Your task to perform on an android device: Open the calendar and show me this week's events? Image 0: 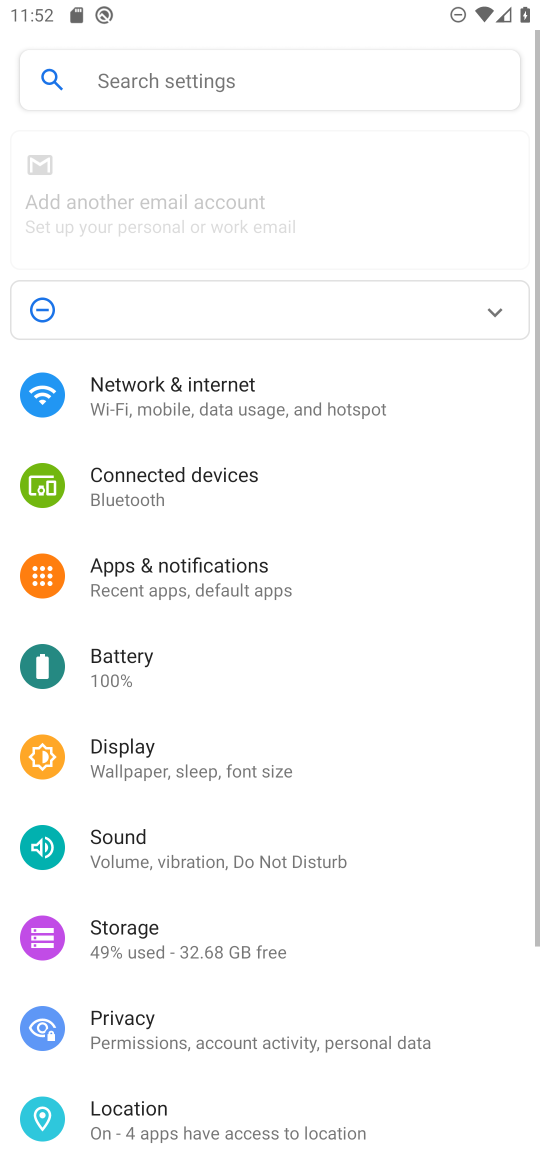
Step 0: press home button
Your task to perform on an android device: Open the calendar and show me this week's events? Image 1: 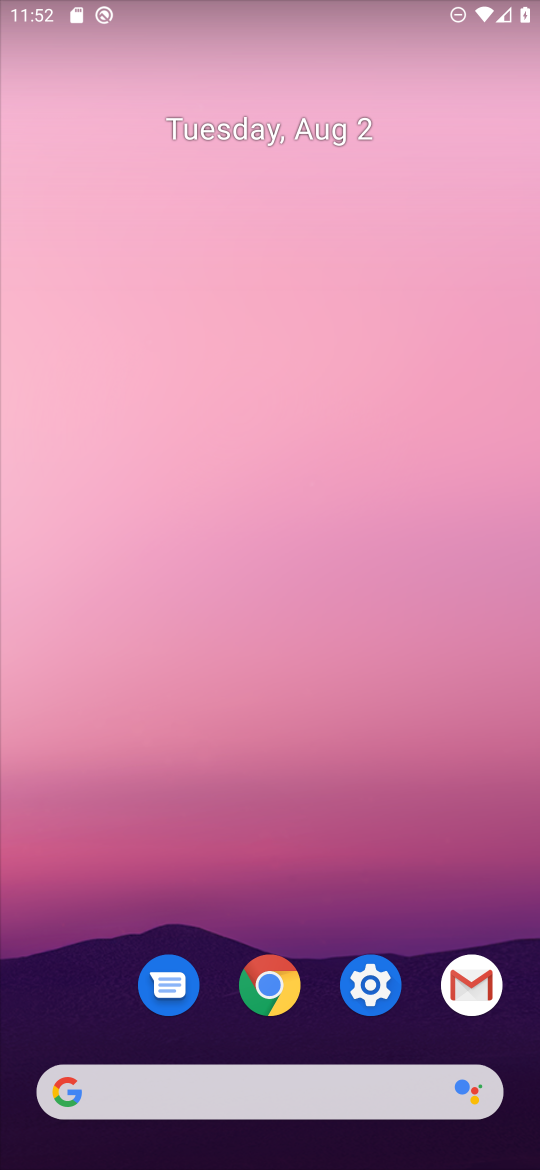
Step 1: drag from (357, 1115) to (171, 271)
Your task to perform on an android device: Open the calendar and show me this week's events? Image 2: 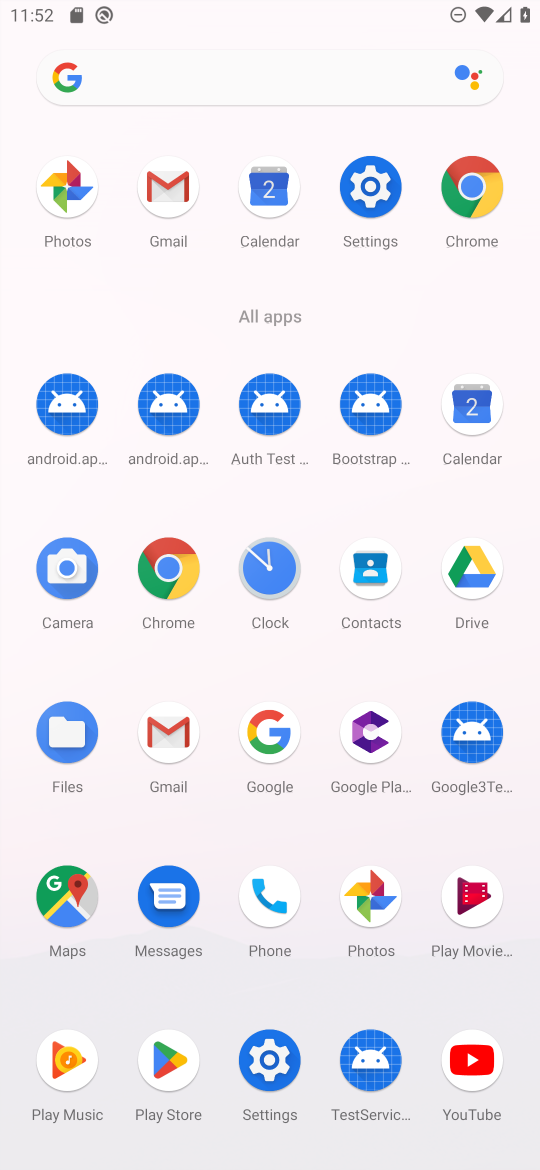
Step 2: click (466, 410)
Your task to perform on an android device: Open the calendar and show me this week's events? Image 3: 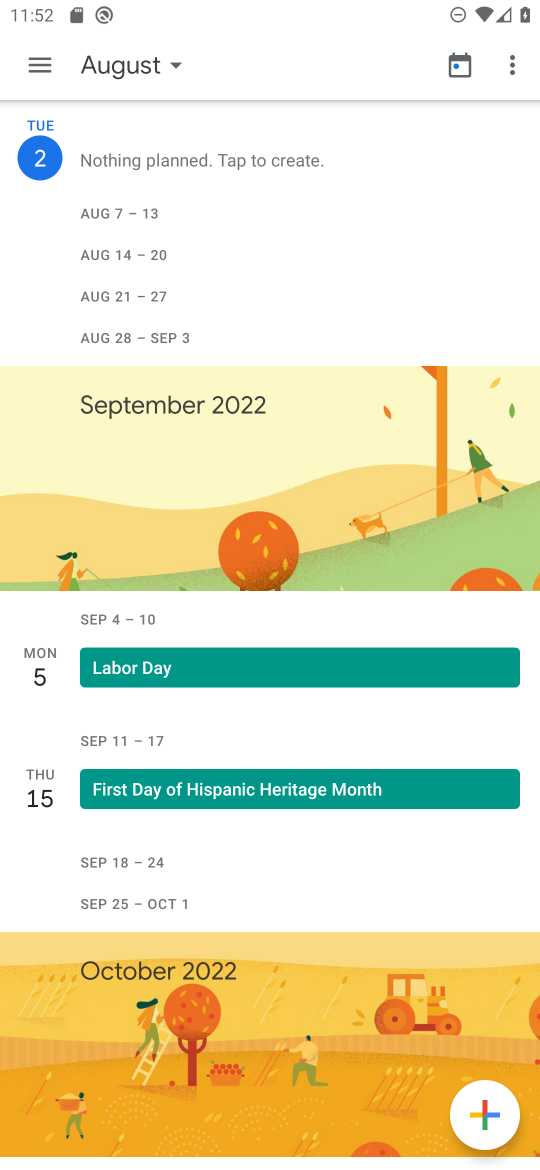
Step 3: click (24, 61)
Your task to perform on an android device: Open the calendar and show me this week's events? Image 4: 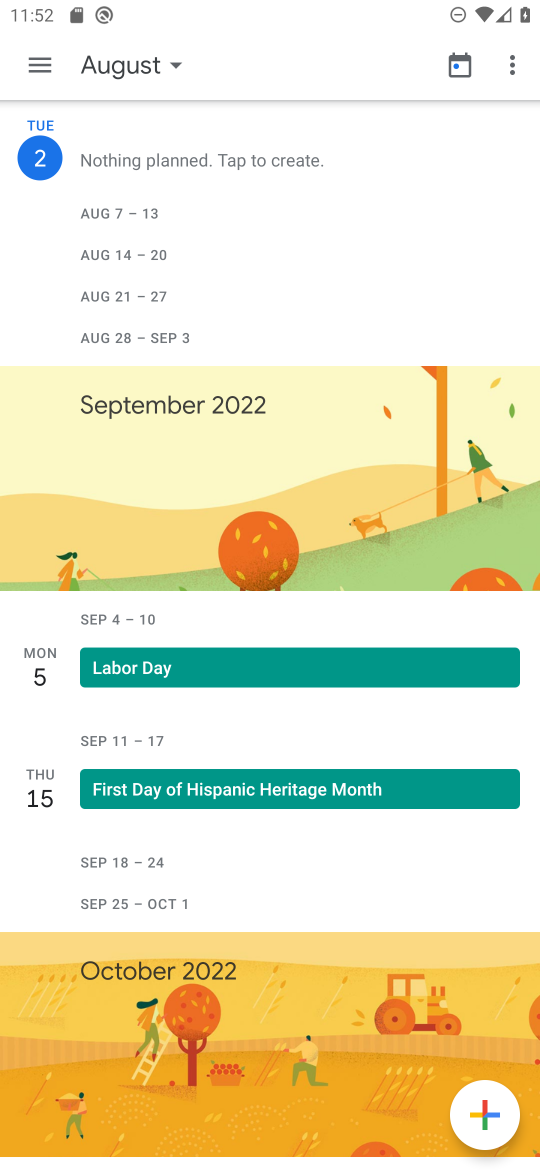
Step 4: click (34, 74)
Your task to perform on an android device: Open the calendar and show me this week's events? Image 5: 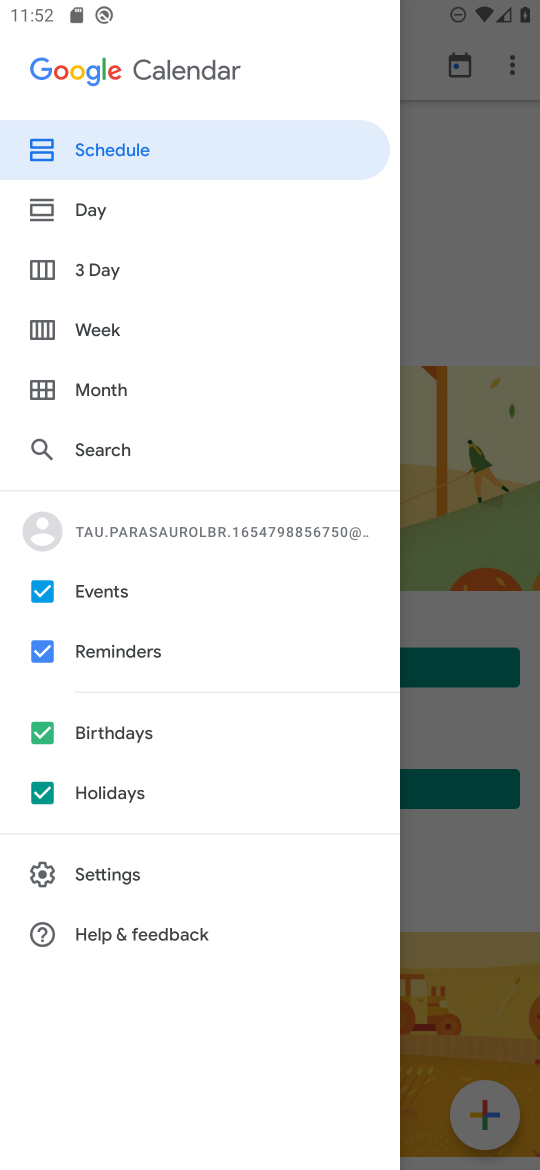
Step 5: click (101, 384)
Your task to perform on an android device: Open the calendar and show me this week's events? Image 6: 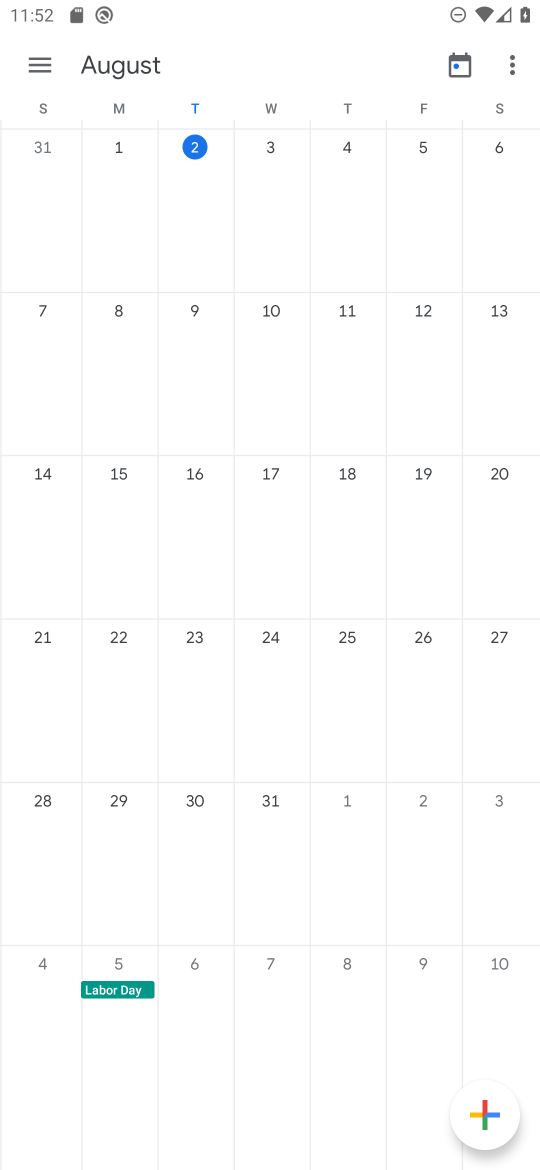
Step 6: click (187, 153)
Your task to perform on an android device: Open the calendar and show me this week's events? Image 7: 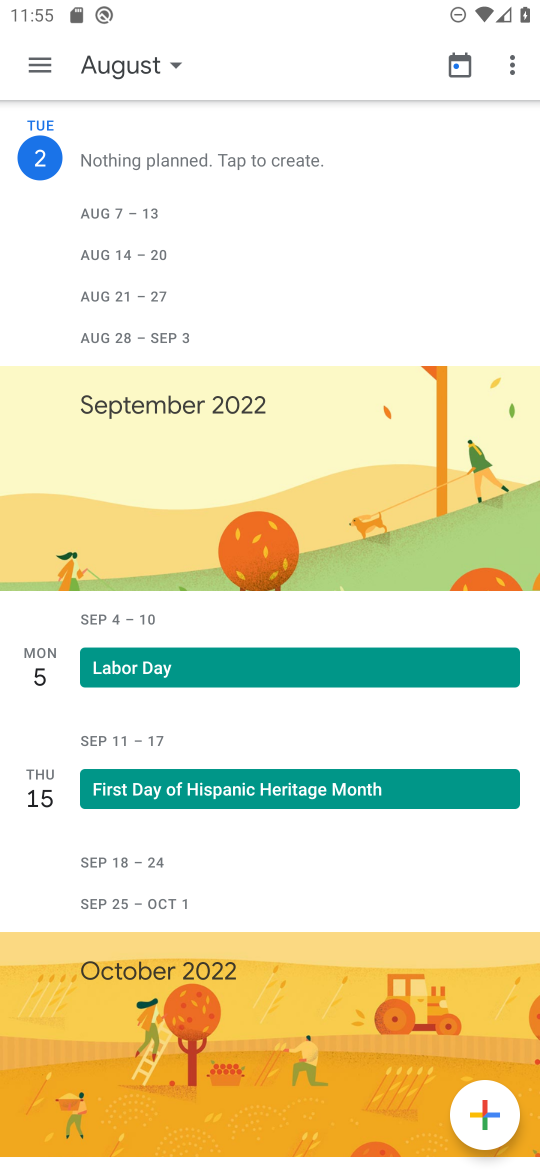
Step 7: task complete